Your task to perform on an android device: turn on the 24-hour format for clock Image 0: 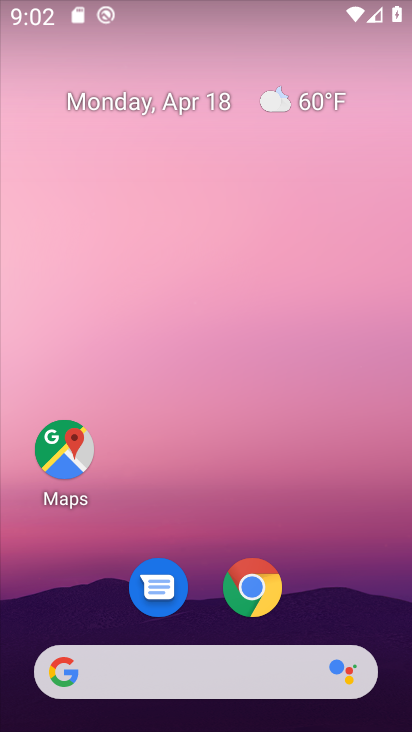
Step 0: drag from (351, 604) to (332, 196)
Your task to perform on an android device: turn on the 24-hour format for clock Image 1: 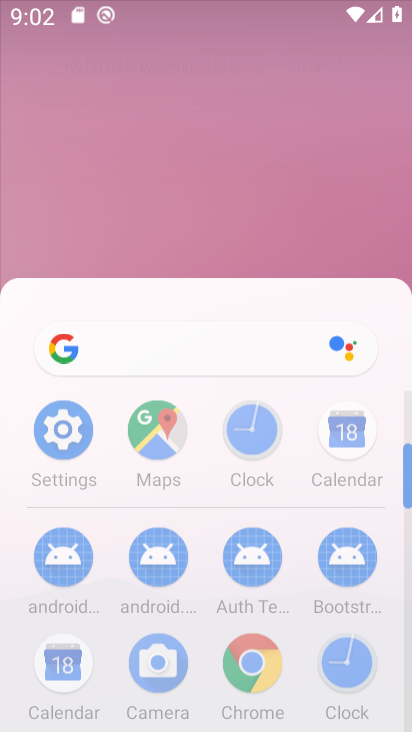
Step 1: click (332, 196)
Your task to perform on an android device: turn on the 24-hour format for clock Image 2: 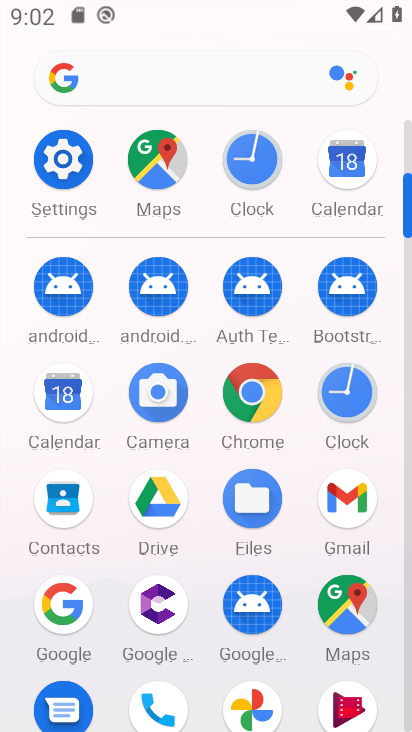
Step 2: click (234, 186)
Your task to perform on an android device: turn on the 24-hour format for clock Image 3: 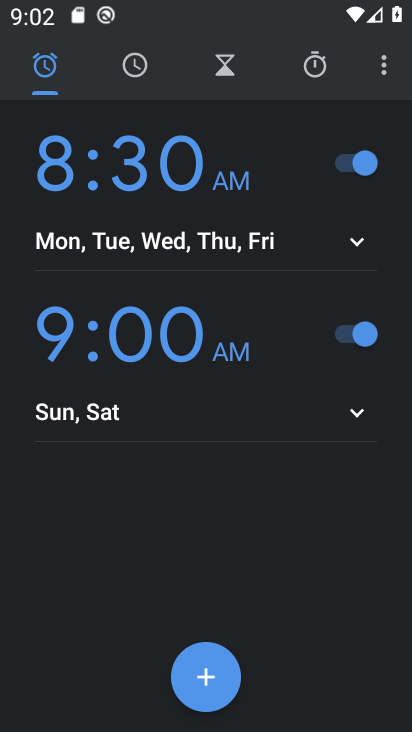
Step 3: click (393, 67)
Your task to perform on an android device: turn on the 24-hour format for clock Image 4: 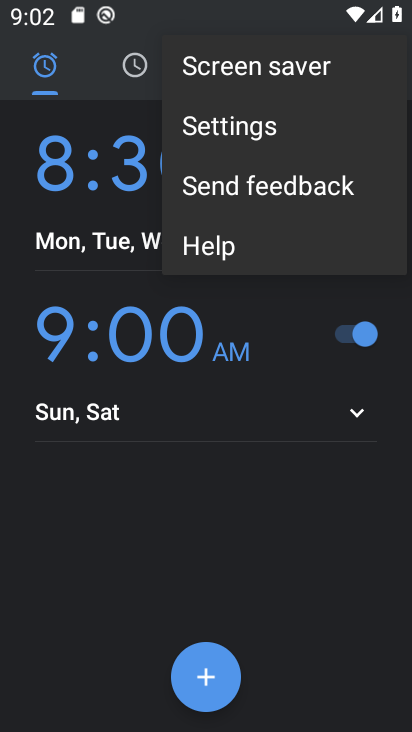
Step 4: click (283, 141)
Your task to perform on an android device: turn on the 24-hour format for clock Image 5: 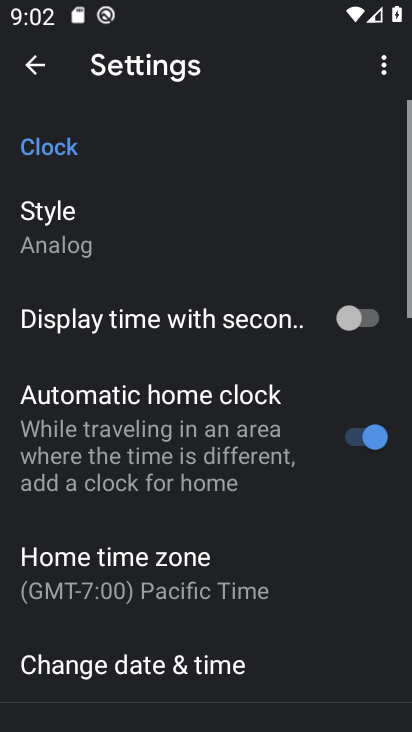
Step 5: drag from (222, 561) to (246, 175)
Your task to perform on an android device: turn on the 24-hour format for clock Image 6: 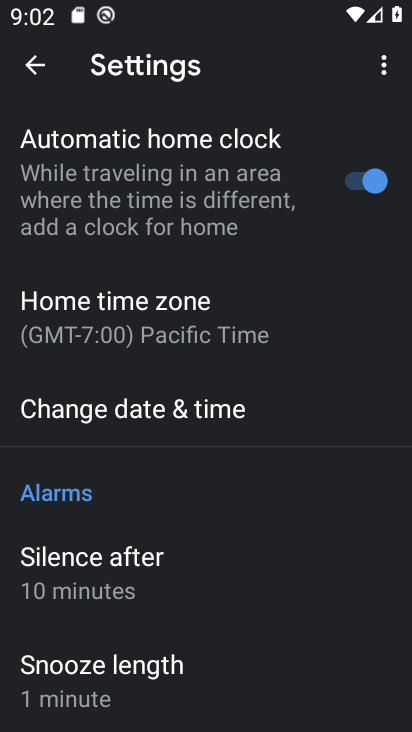
Step 6: drag from (228, 521) to (262, 266)
Your task to perform on an android device: turn on the 24-hour format for clock Image 7: 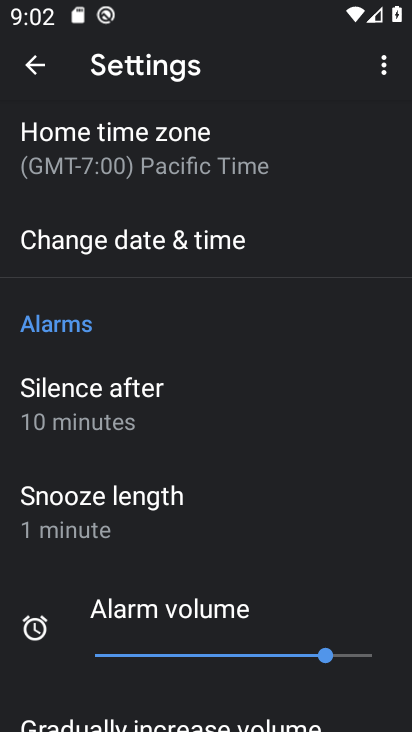
Step 7: click (198, 243)
Your task to perform on an android device: turn on the 24-hour format for clock Image 8: 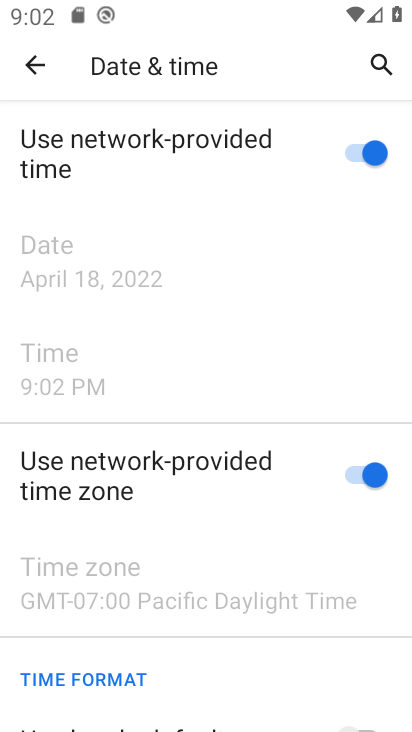
Step 8: drag from (239, 563) to (262, 241)
Your task to perform on an android device: turn on the 24-hour format for clock Image 9: 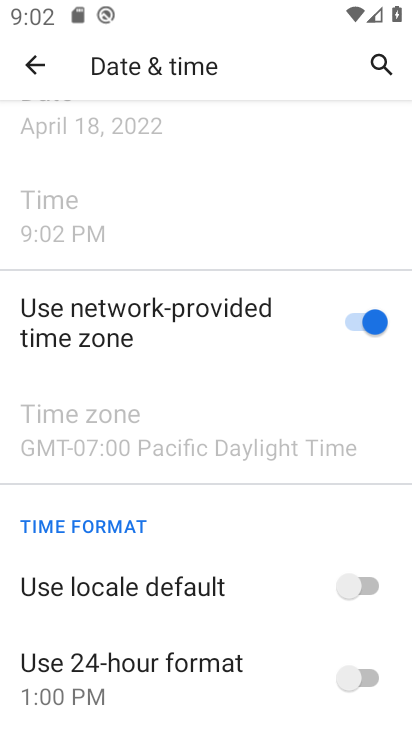
Step 9: click (353, 673)
Your task to perform on an android device: turn on the 24-hour format for clock Image 10: 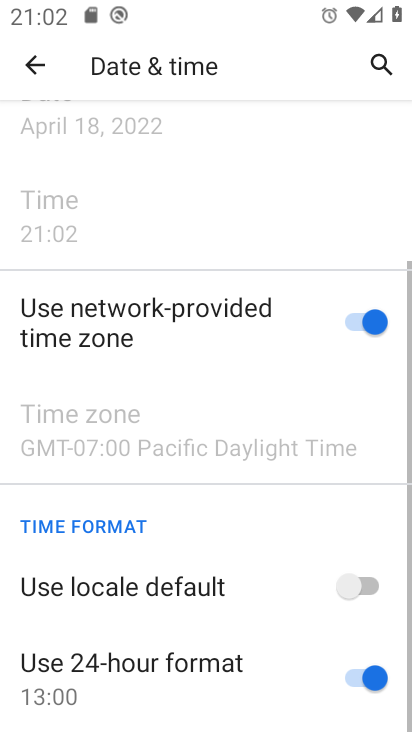
Step 10: task complete